Your task to perform on an android device: stop showing notifications on the lock screen Image 0: 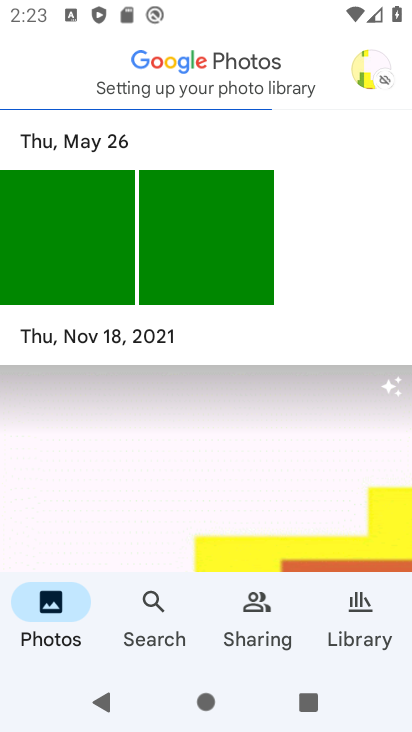
Step 0: press home button
Your task to perform on an android device: stop showing notifications on the lock screen Image 1: 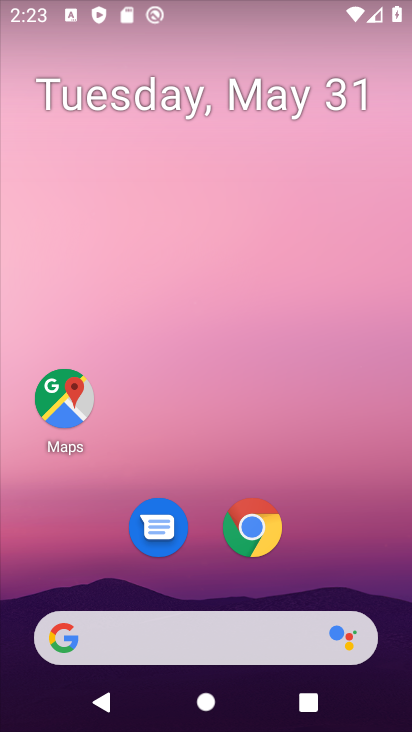
Step 1: drag from (397, 632) to (338, 205)
Your task to perform on an android device: stop showing notifications on the lock screen Image 2: 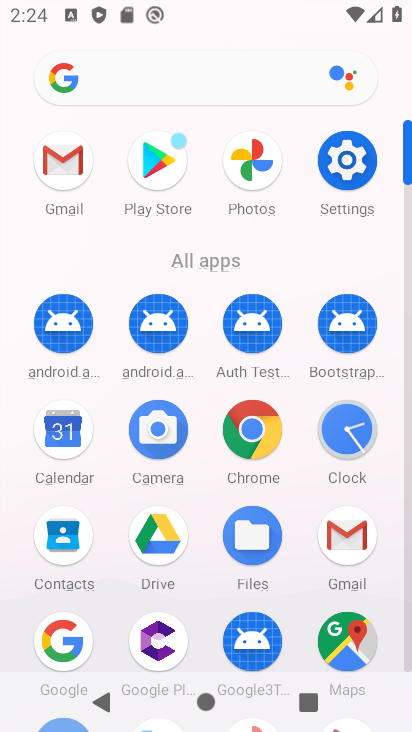
Step 2: click (412, 543)
Your task to perform on an android device: stop showing notifications on the lock screen Image 3: 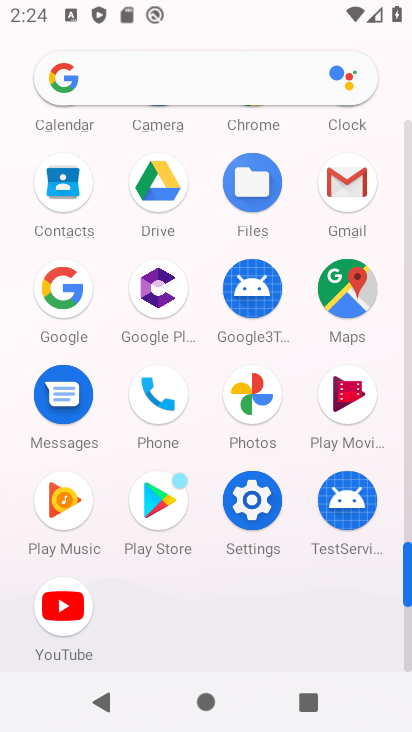
Step 3: click (251, 500)
Your task to perform on an android device: stop showing notifications on the lock screen Image 4: 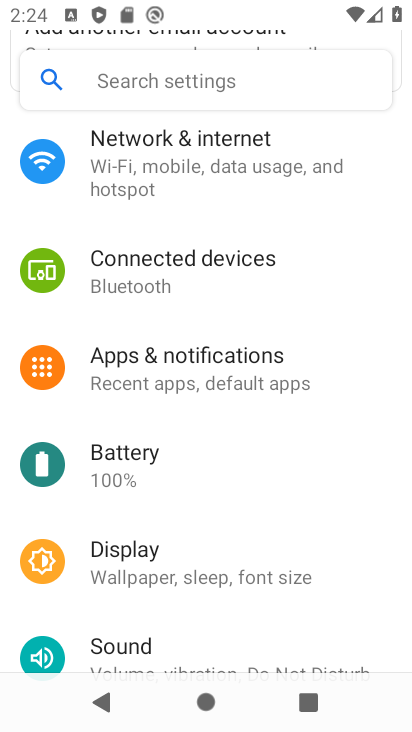
Step 4: click (161, 373)
Your task to perform on an android device: stop showing notifications on the lock screen Image 5: 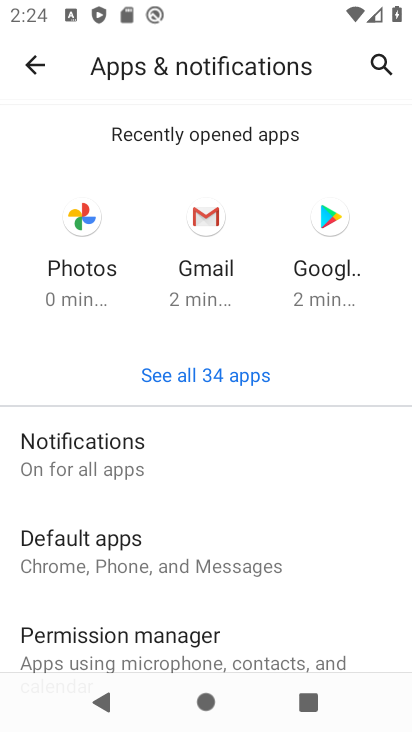
Step 5: click (94, 456)
Your task to perform on an android device: stop showing notifications on the lock screen Image 6: 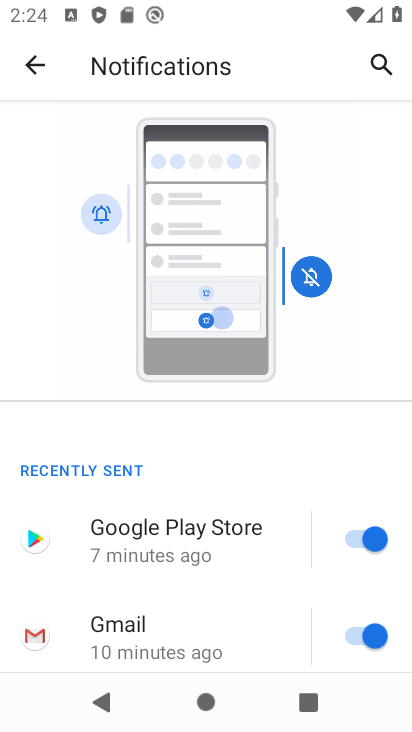
Step 6: drag from (314, 683) to (243, 162)
Your task to perform on an android device: stop showing notifications on the lock screen Image 7: 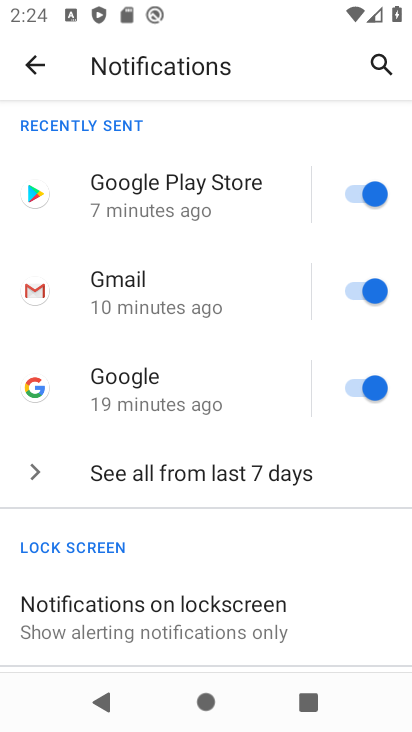
Step 7: drag from (281, 629) to (219, 136)
Your task to perform on an android device: stop showing notifications on the lock screen Image 8: 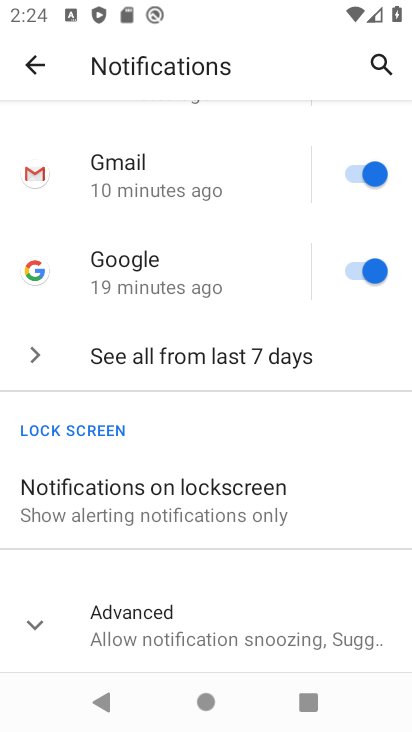
Step 8: click (108, 492)
Your task to perform on an android device: stop showing notifications on the lock screen Image 9: 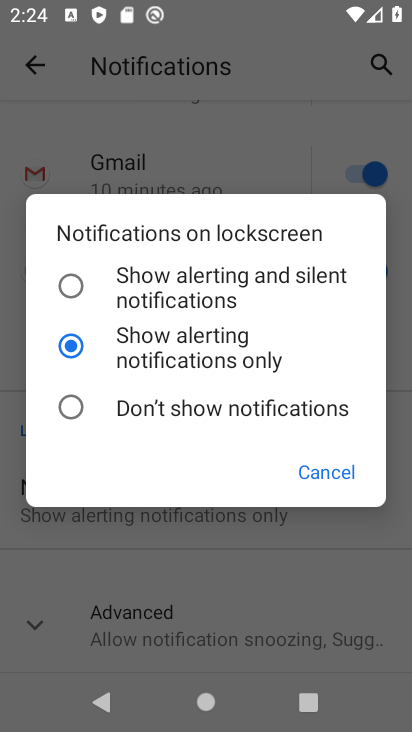
Step 9: click (71, 410)
Your task to perform on an android device: stop showing notifications on the lock screen Image 10: 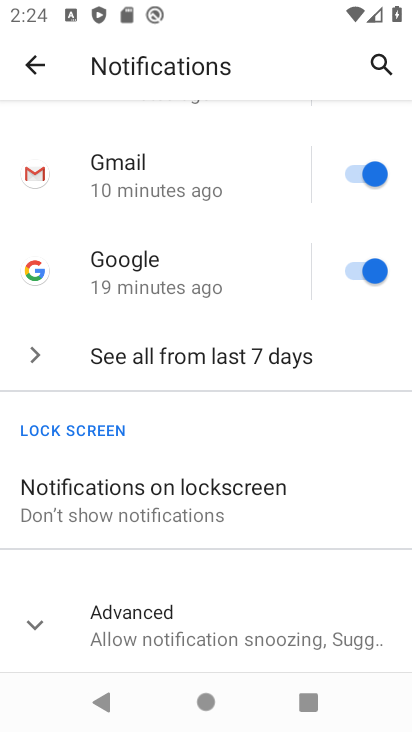
Step 10: task complete